Your task to perform on an android device: Open my contact list Image 0: 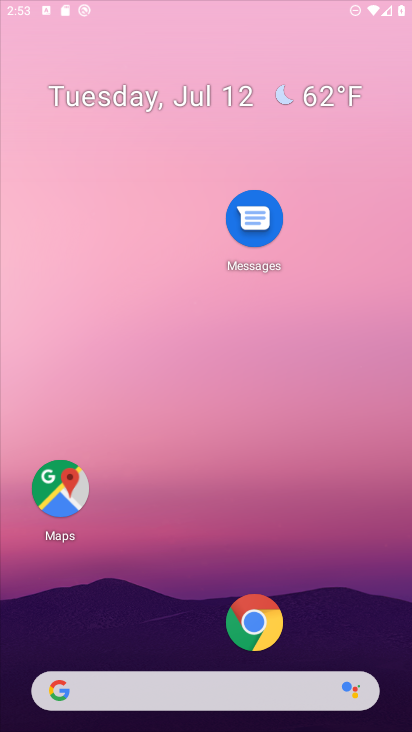
Step 0: press home button
Your task to perform on an android device: Open my contact list Image 1: 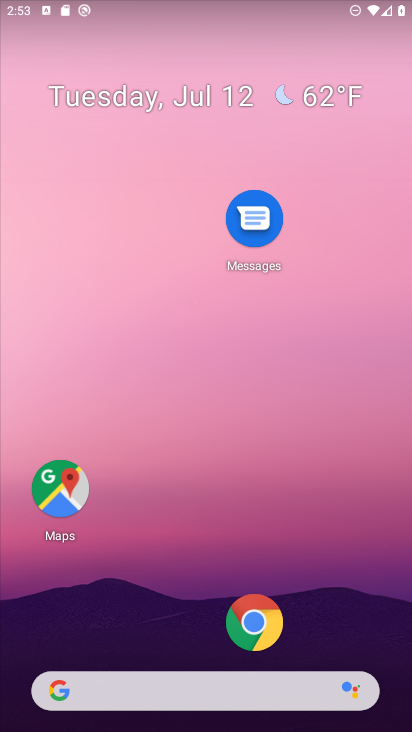
Step 1: drag from (200, 653) to (190, 124)
Your task to perform on an android device: Open my contact list Image 2: 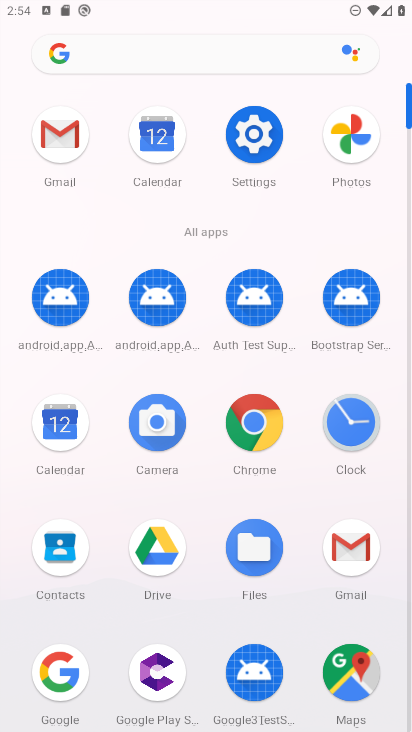
Step 2: drag from (196, 628) to (202, 176)
Your task to perform on an android device: Open my contact list Image 3: 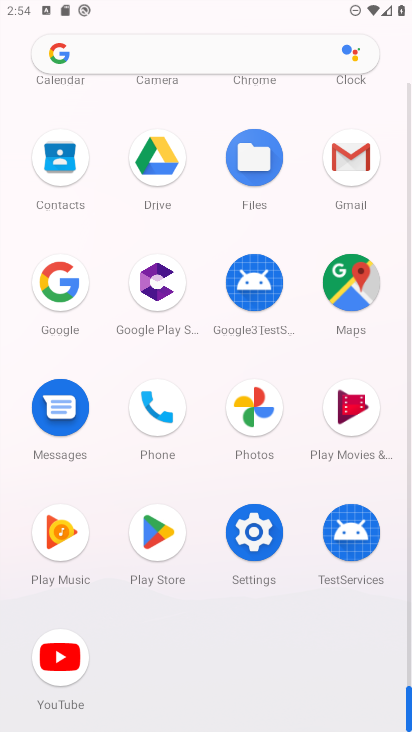
Step 3: click (54, 157)
Your task to perform on an android device: Open my contact list Image 4: 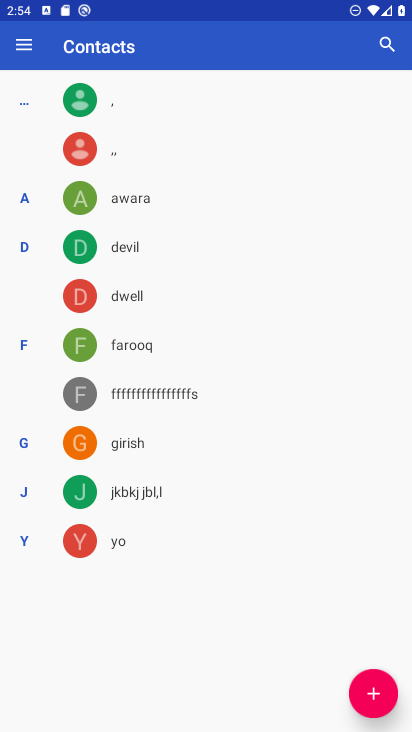
Step 4: task complete